Your task to perform on an android device: Open sound settings Image 0: 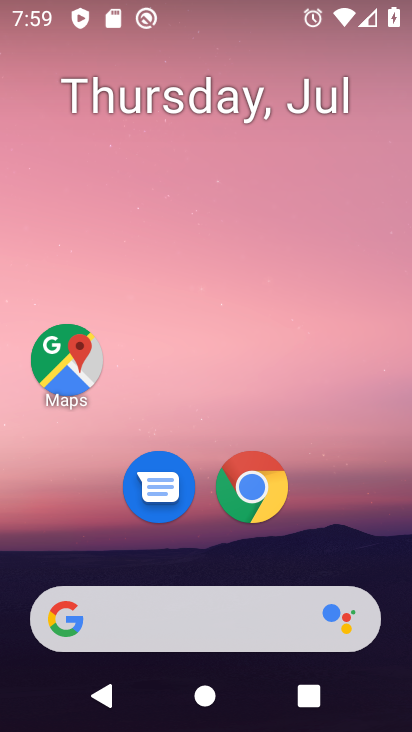
Step 0: drag from (284, 507) to (267, 121)
Your task to perform on an android device: Open sound settings Image 1: 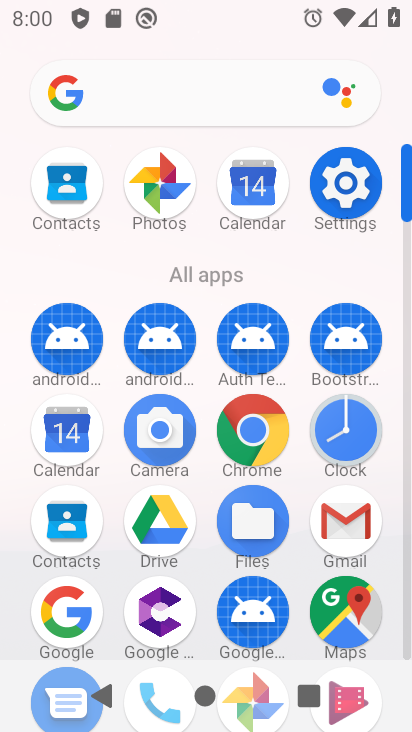
Step 1: click (355, 218)
Your task to perform on an android device: Open sound settings Image 2: 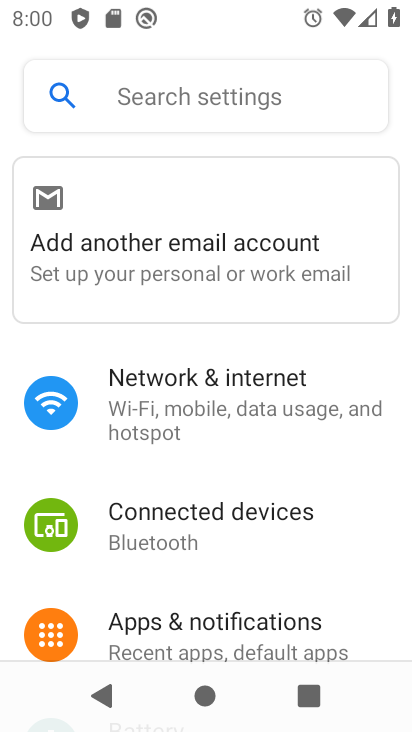
Step 2: press home button
Your task to perform on an android device: Open sound settings Image 3: 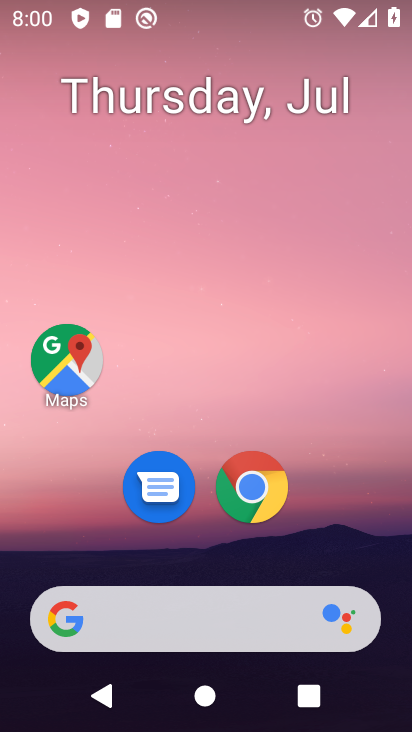
Step 3: drag from (263, 627) to (229, 237)
Your task to perform on an android device: Open sound settings Image 4: 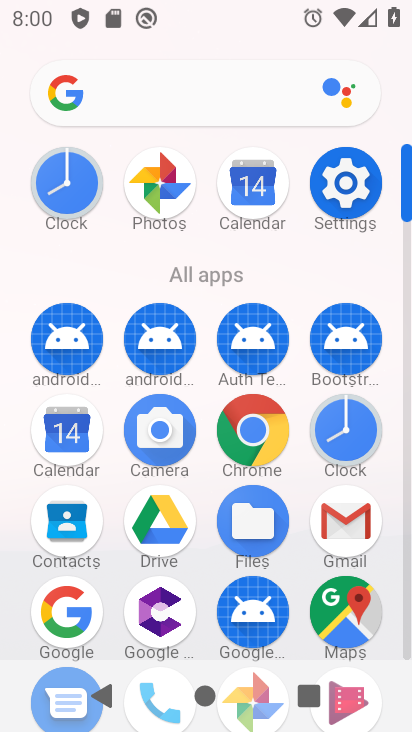
Step 4: click (354, 204)
Your task to perform on an android device: Open sound settings Image 5: 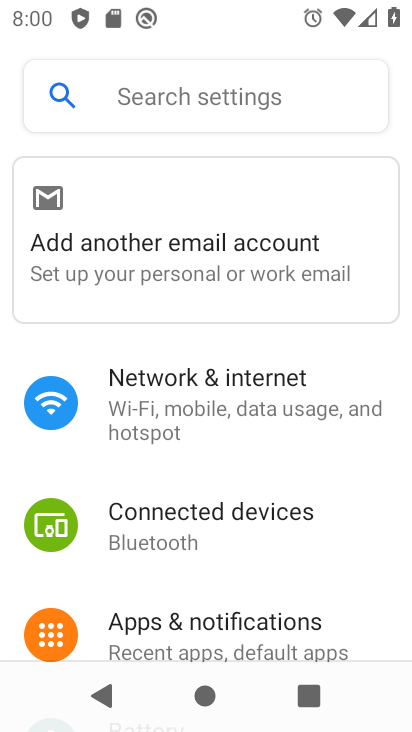
Step 5: drag from (255, 538) to (246, 321)
Your task to perform on an android device: Open sound settings Image 6: 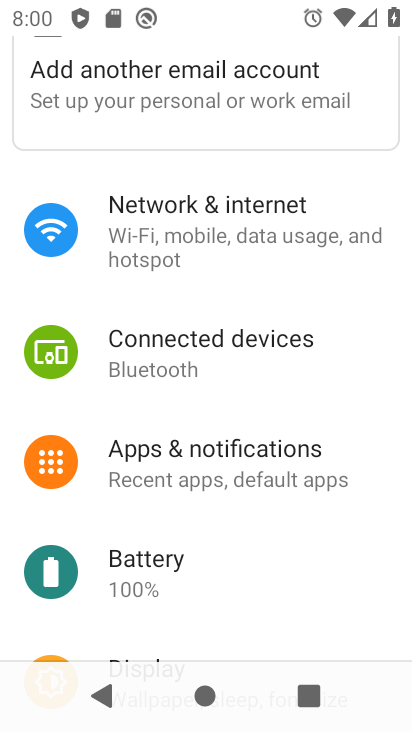
Step 6: drag from (199, 572) to (227, 264)
Your task to perform on an android device: Open sound settings Image 7: 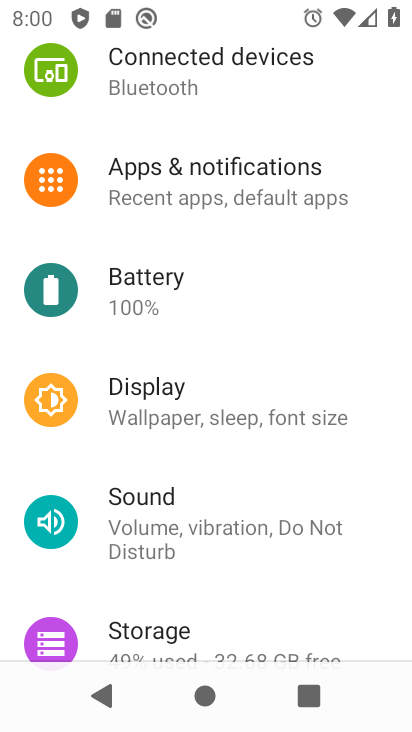
Step 7: click (210, 520)
Your task to perform on an android device: Open sound settings Image 8: 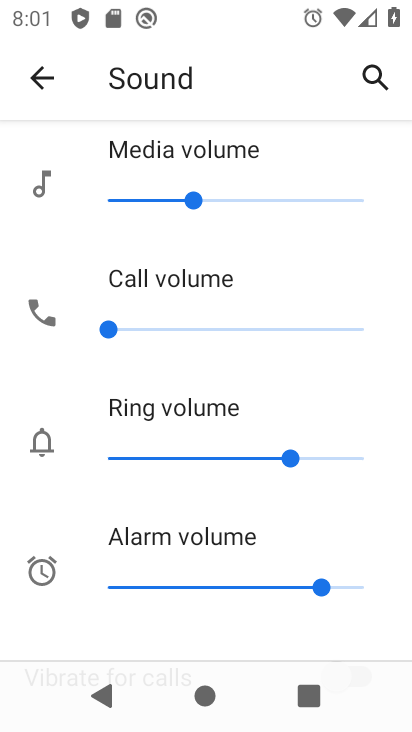
Step 8: task complete